Your task to perform on an android device: read, delete, or share a saved page in the chrome app Image 0: 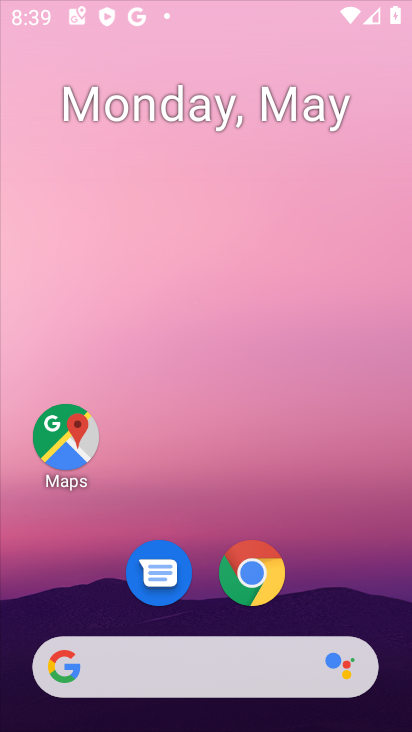
Step 0: drag from (200, 615) to (196, 201)
Your task to perform on an android device: read, delete, or share a saved page in the chrome app Image 1: 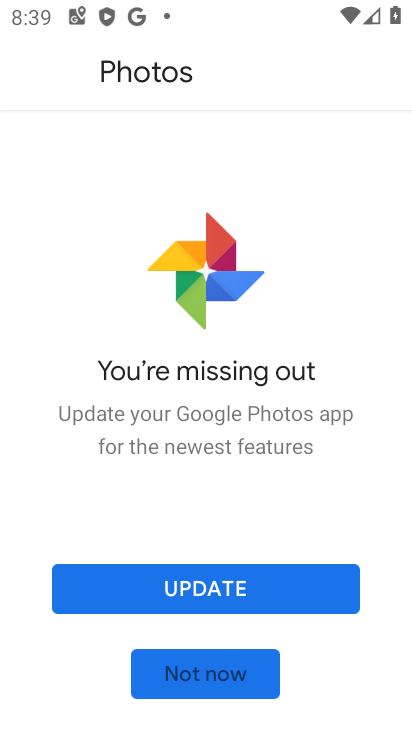
Step 1: press home button
Your task to perform on an android device: read, delete, or share a saved page in the chrome app Image 2: 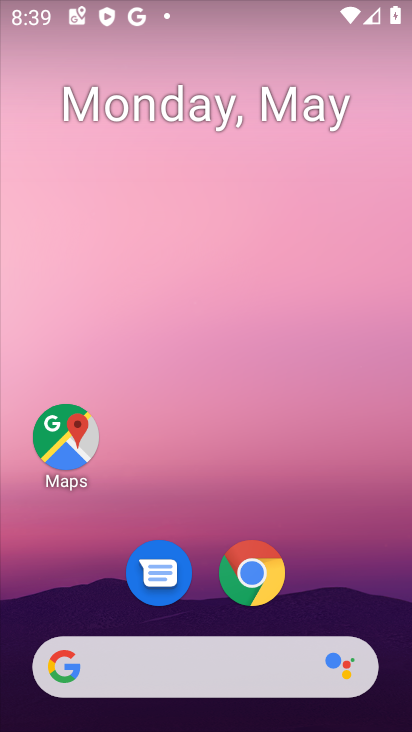
Step 2: drag from (226, 646) to (276, 184)
Your task to perform on an android device: read, delete, or share a saved page in the chrome app Image 3: 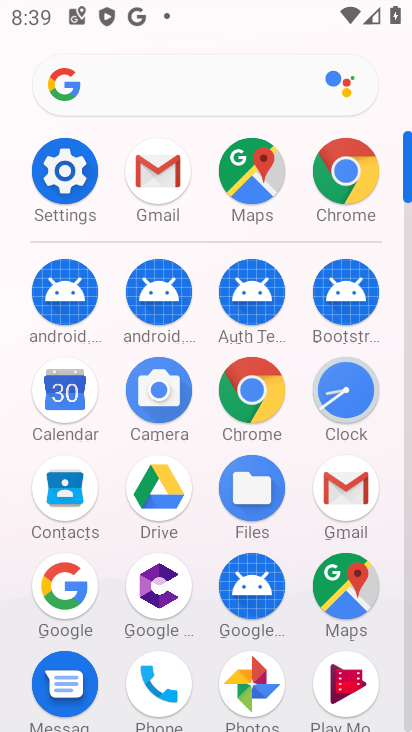
Step 3: click (264, 402)
Your task to perform on an android device: read, delete, or share a saved page in the chrome app Image 4: 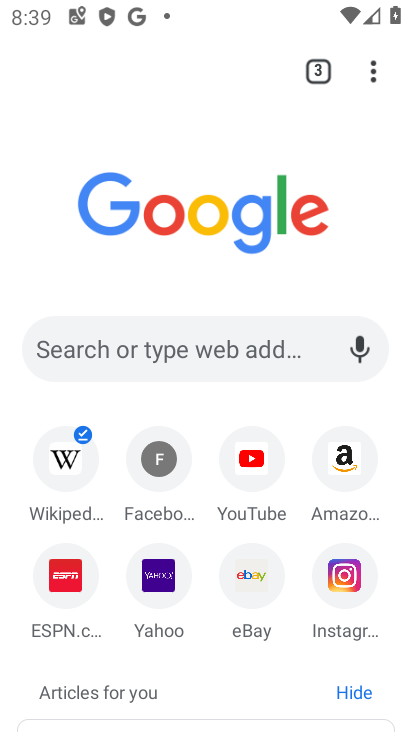
Step 4: click (375, 81)
Your task to perform on an android device: read, delete, or share a saved page in the chrome app Image 5: 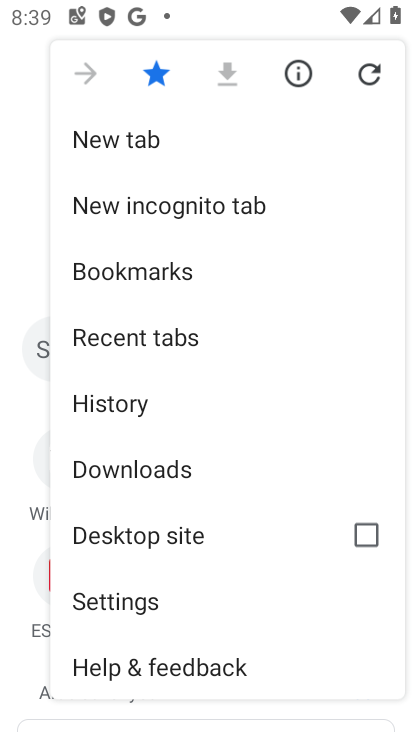
Step 5: click (171, 478)
Your task to perform on an android device: read, delete, or share a saved page in the chrome app Image 6: 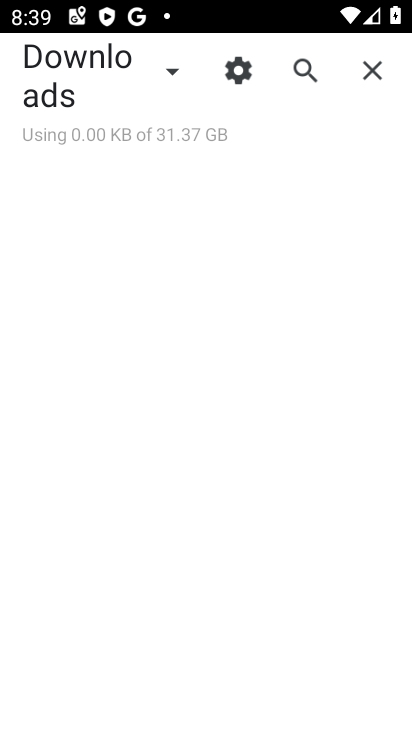
Step 6: click (172, 76)
Your task to perform on an android device: read, delete, or share a saved page in the chrome app Image 7: 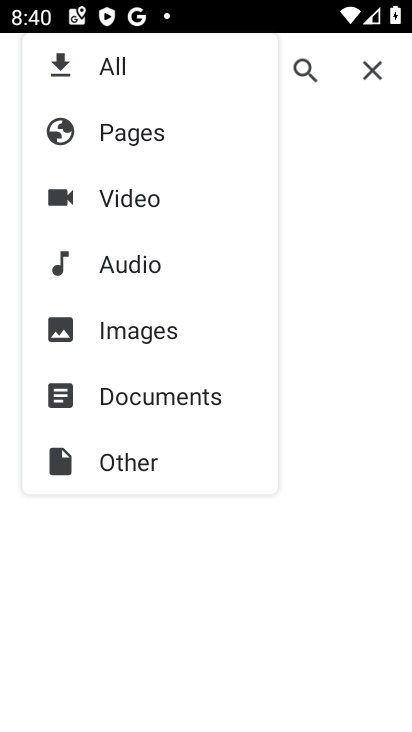
Step 7: click (147, 143)
Your task to perform on an android device: read, delete, or share a saved page in the chrome app Image 8: 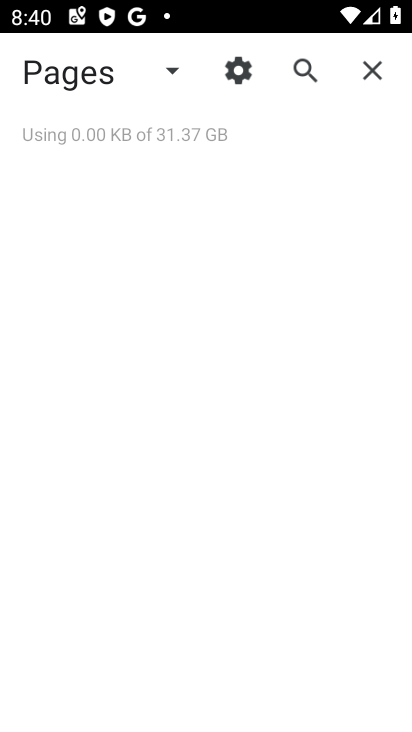
Step 8: task complete